Your task to perform on an android device: all mails in gmail Image 0: 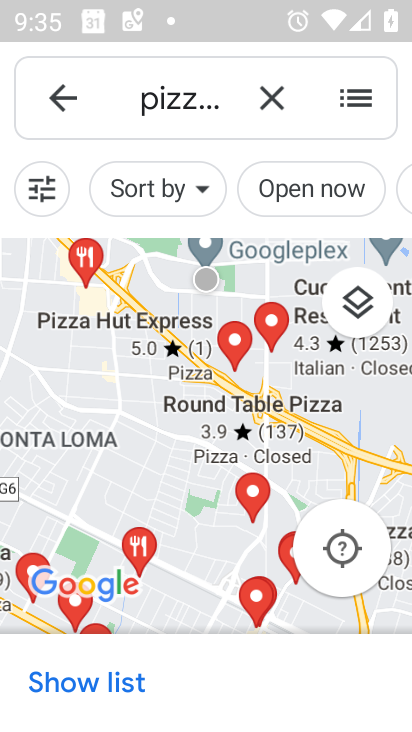
Step 0: click (273, 119)
Your task to perform on an android device: all mails in gmail Image 1: 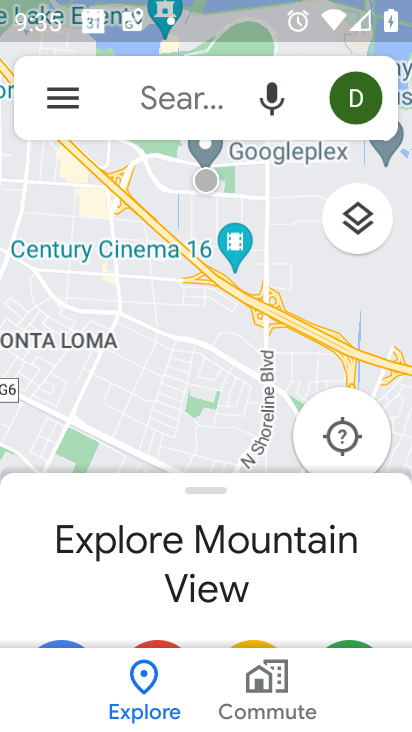
Step 1: click (154, 114)
Your task to perform on an android device: all mails in gmail Image 2: 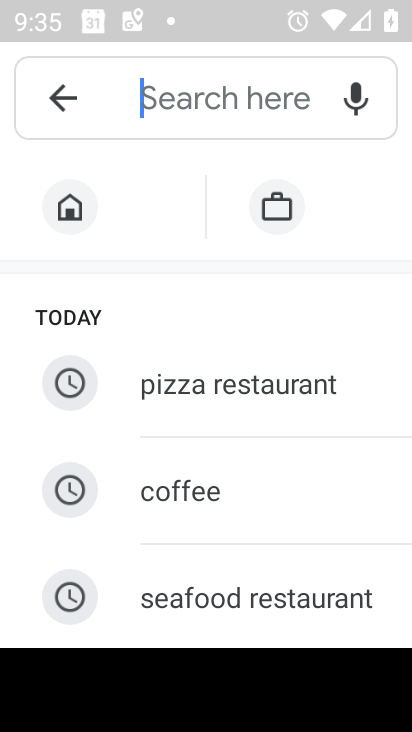
Step 2: press home button
Your task to perform on an android device: all mails in gmail Image 3: 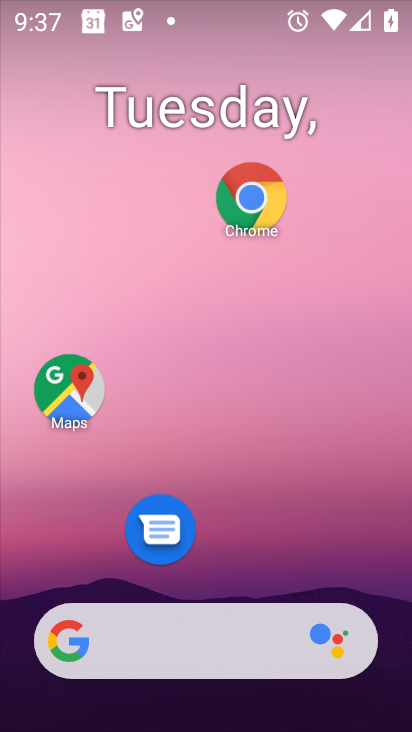
Step 3: drag from (327, 555) to (355, 35)
Your task to perform on an android device: all mails in gmail Image 4: 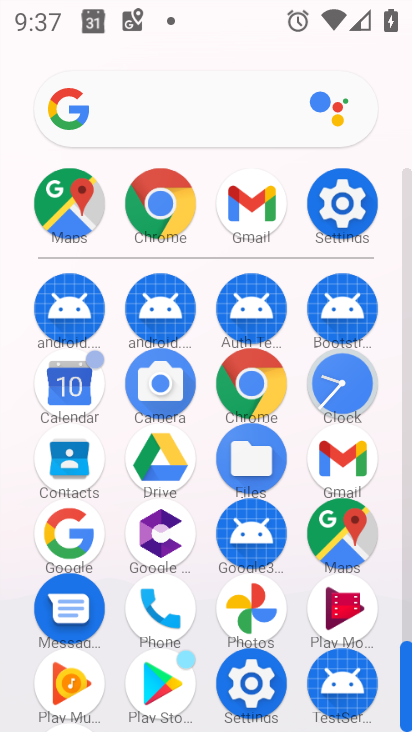
Step 4: click (348, 472)
Your task to perform on an android device: all mails in gmail Image 5: 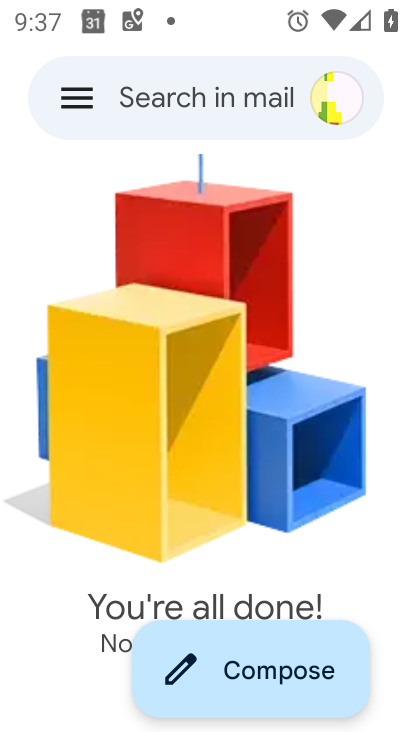
Step 5: click (100, 114)
Your task to perform on an android device: all mails in gmail Image 6: 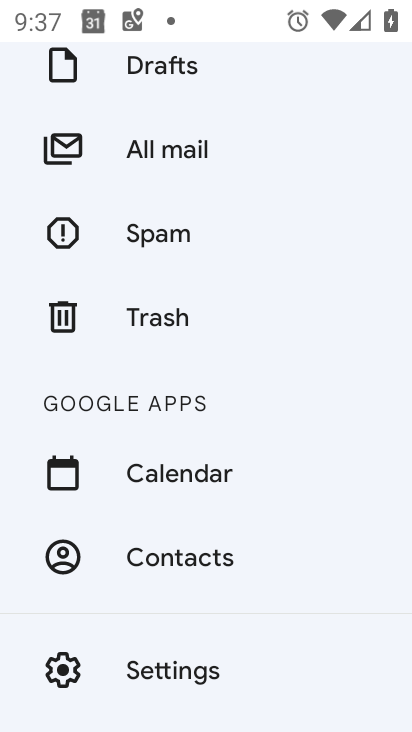
Step 6: click (149, 160)
Your task to perform on an android device: all mails in gmail Image 7: 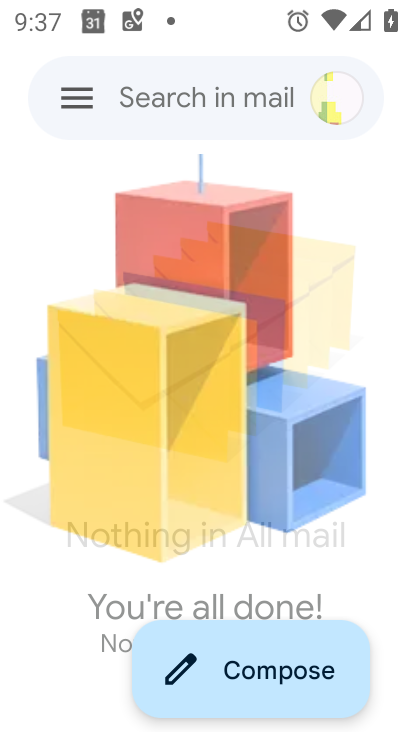
Step 7: task complete